Your task to perform on an android device: open app "DoorDash - Dasher" (install if not already installed) Image 0: 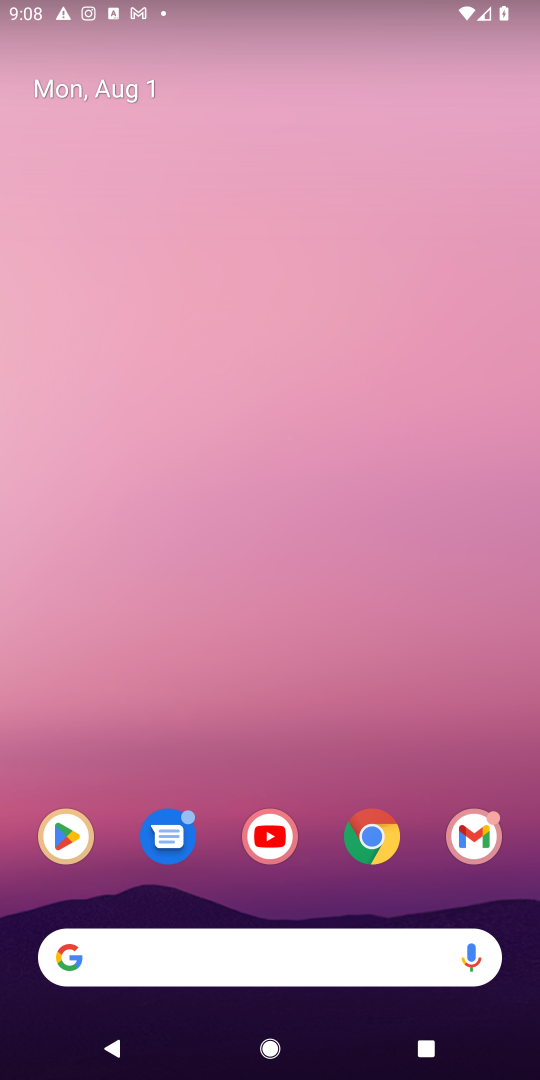
Step 0: press home button
Your task to perform on an android device: open app "DoorDash - Dasher" (install if not already installed) Image 1: 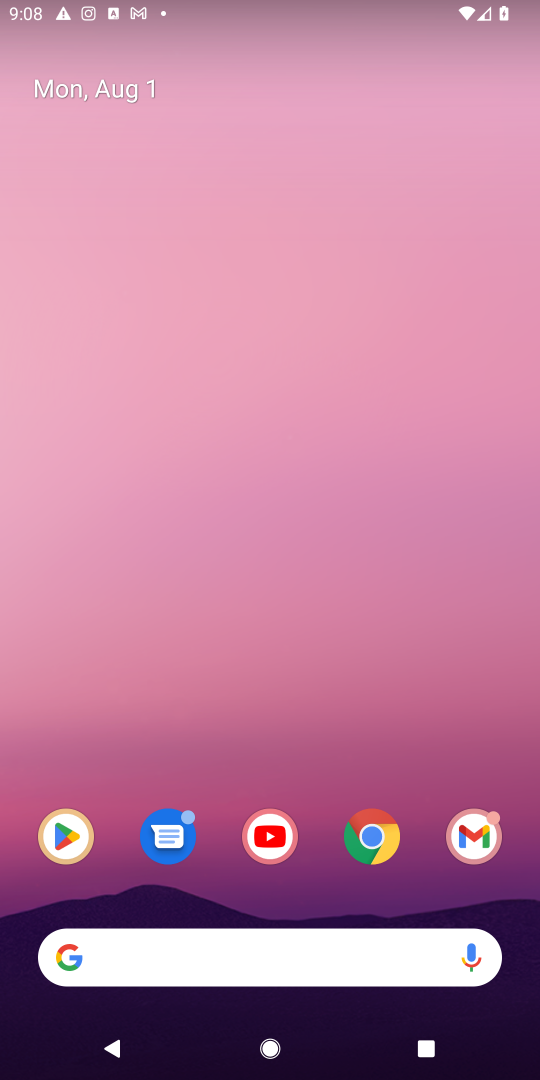
Step 1: click (60, 849)
Your task to perform on an android device: open app "DoorDash - Dasher" (install if not already installed) Image 2: 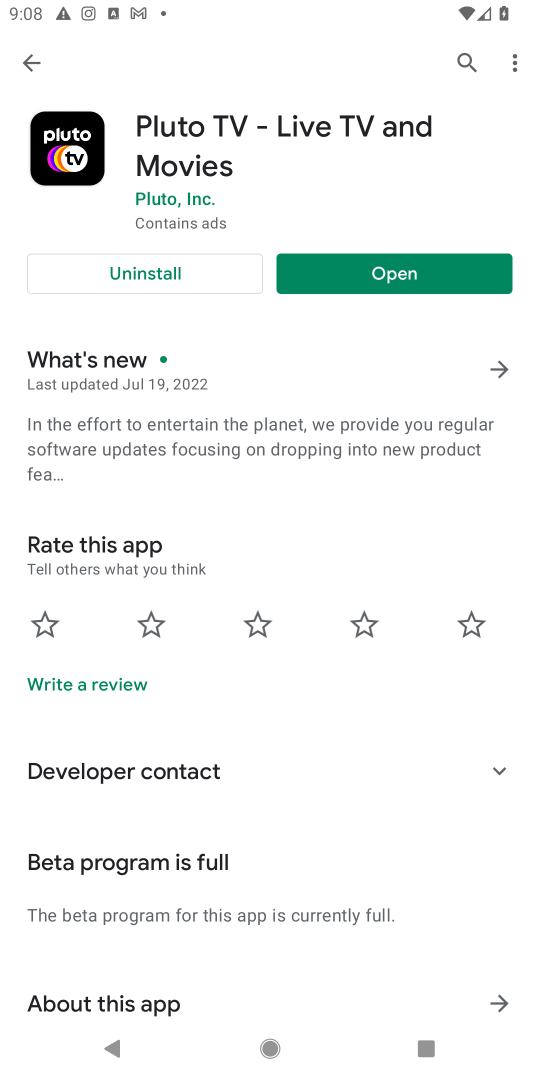
Step 2: click (466, 47)
Your task to perform on an android device: open app "DoorDash - Dasher" (install if not already installed) Image 3: 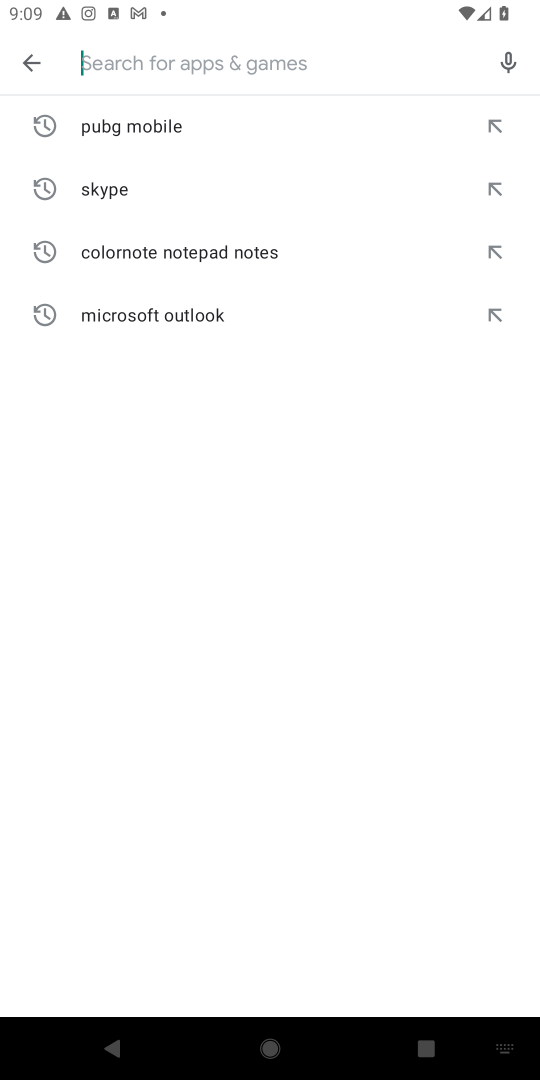
Step 3: type "DoorDash - Dasher"
Your task to perform on an android device: open app "DoorDash - Dasher" (install if not already installed) Image 4: 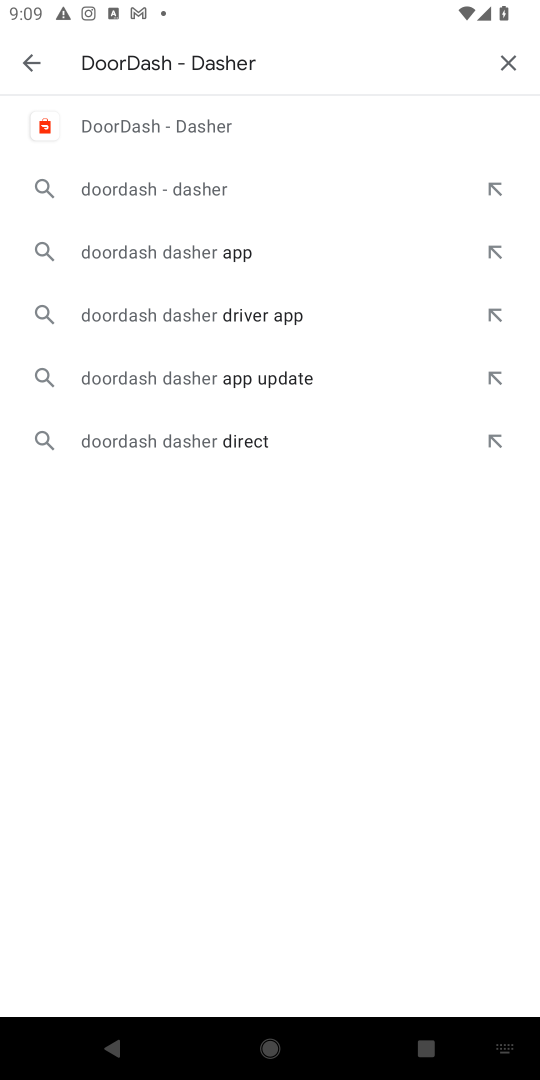
Step 4: click (138, 129)
Your task to perform on an android device: open app "DoorDash - Dasher" (install if not already installed) Image 5: 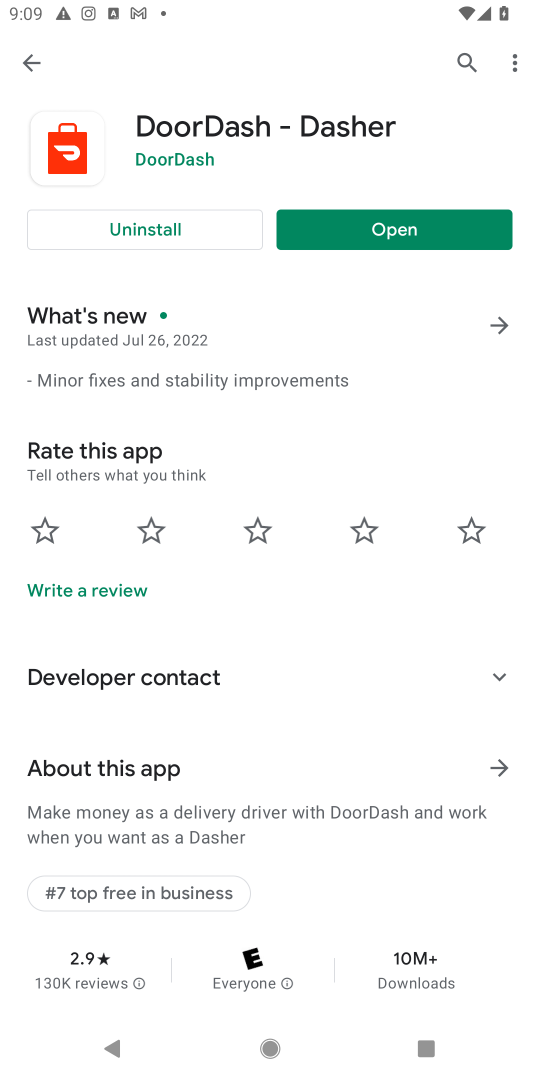
Step 5: click (467, 233)
Your task to perform on an android device: open app "DoorDash - Dasher" (install if not already installed) Image 6: 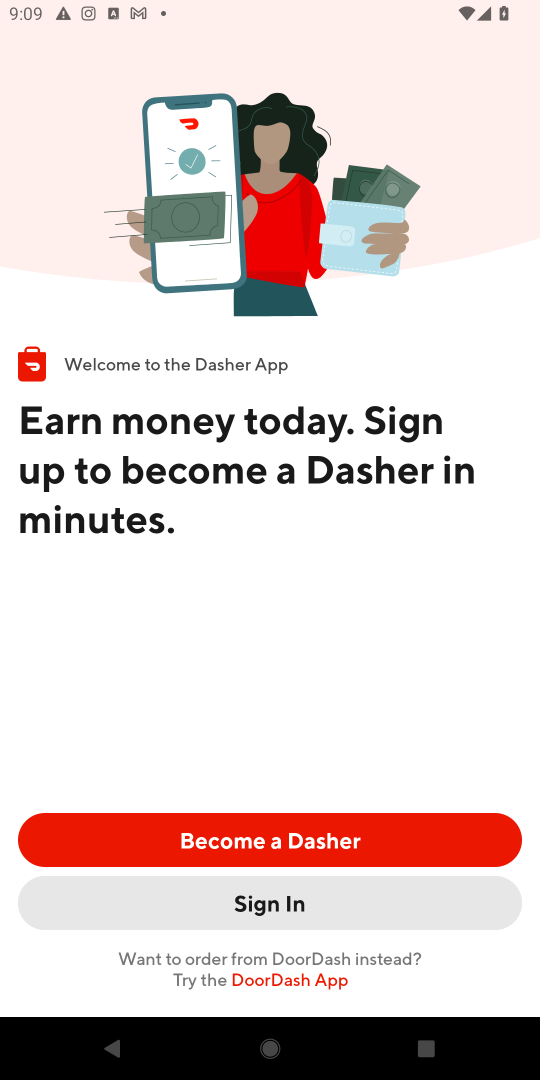
Step 6: task complete